Your task to perform on an android device: turn on improve location accuracy Image 0: 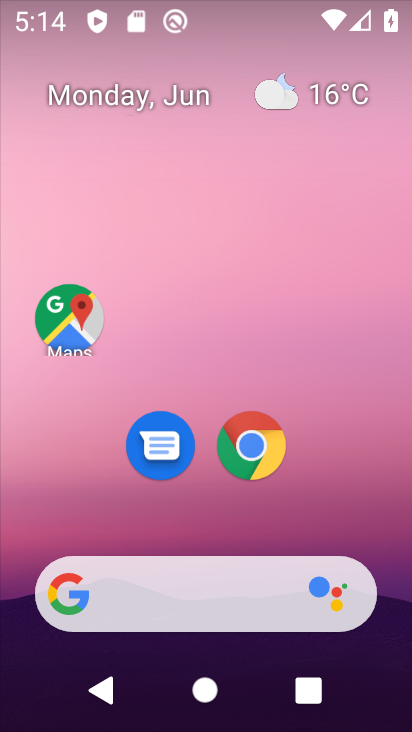
Step 0: drag from (340, 516) to (239, 0)
Your task to perform on an android device: turn on improve location accuracy Image 1: 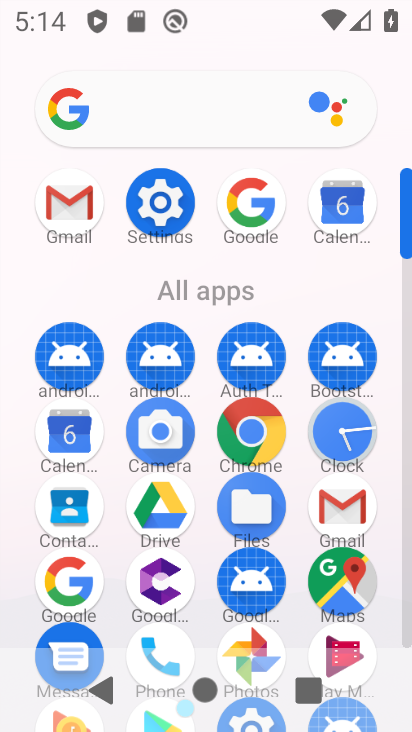
Step 1: click (159, 203)
Your task to perform on an android device: turn on improve location accuracy Image 2: 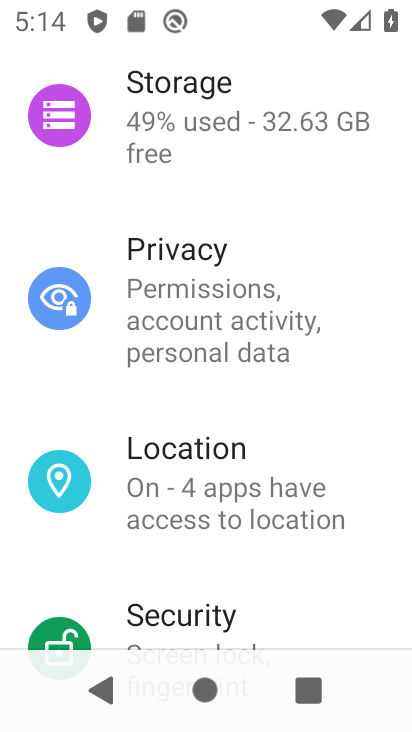
Step 2: click (208, 442)
Your task to perform on an android device: turn on improve location accuracy Image 3: 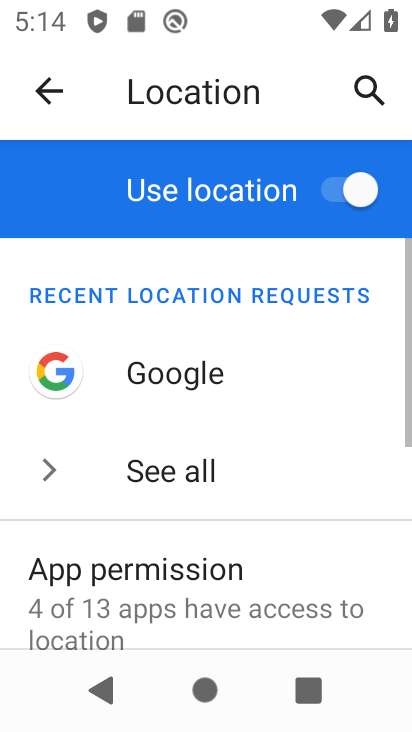
Step 3: drag from (269, 489) to (274, 313)
Your task to perform on an android device: turn on improve location accuracy Image 4: 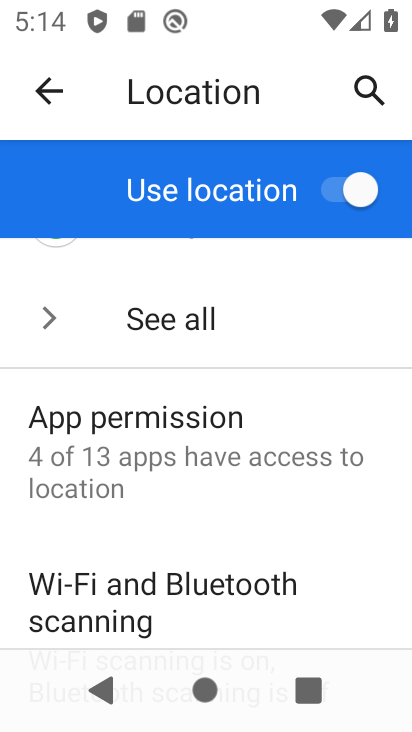
Step 4: drag from (211, 549) to (278, 361)
Your task to perform on an android device: turn on improve location accuracy Image 5: 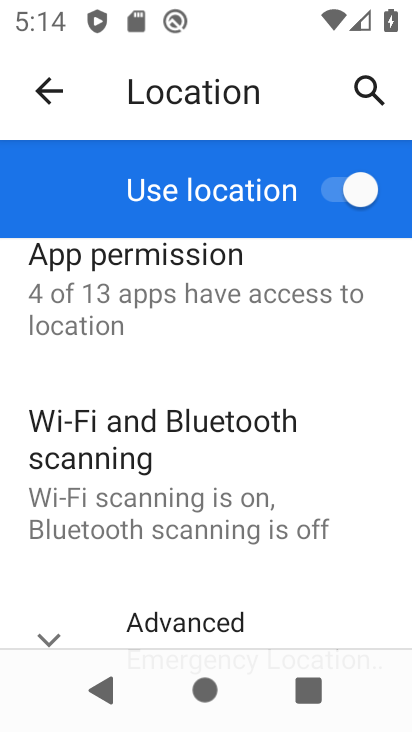
Step 5: drag from (209, 582) to (315, 375)
Your task to perform on an android device: turn on improve location accuracy Image 6: 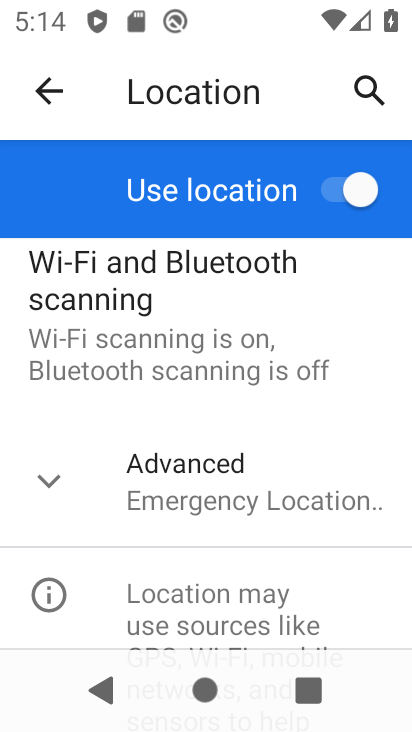
Step 6: click (256, 513)
Your task to perform on an android device: turn on improve location accuracy Image 7: 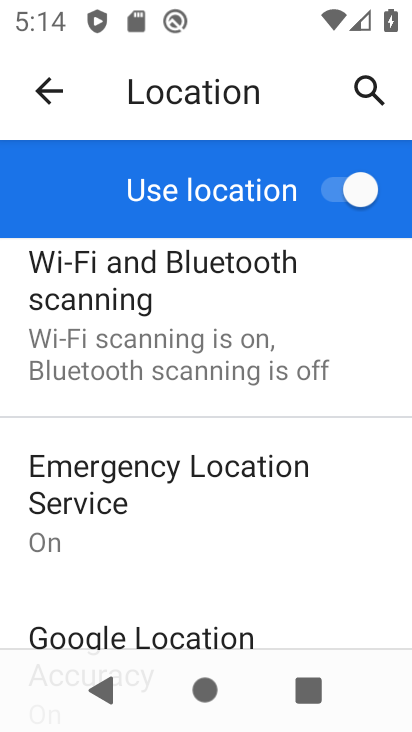
Step 7: drag from (185, 580) to (291, 419)
Your task to perform on an android device: turn on improve location accuracy Image 8: 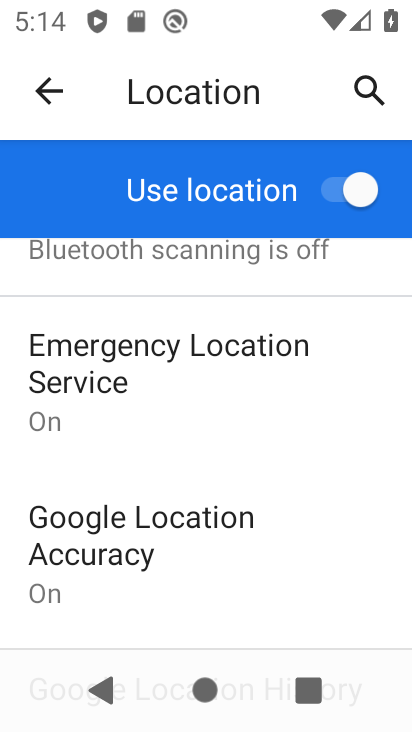
Step 8: click (221, 542)
Your task to perform on an android device: turn on improve location accuracy Image 9: 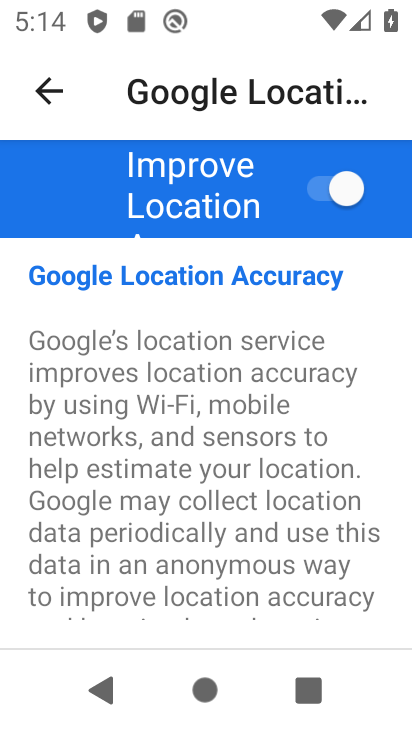
Step 9: task complete